Your task to perform on an android device: Search for Mexican restaurants on Maps Image 0: 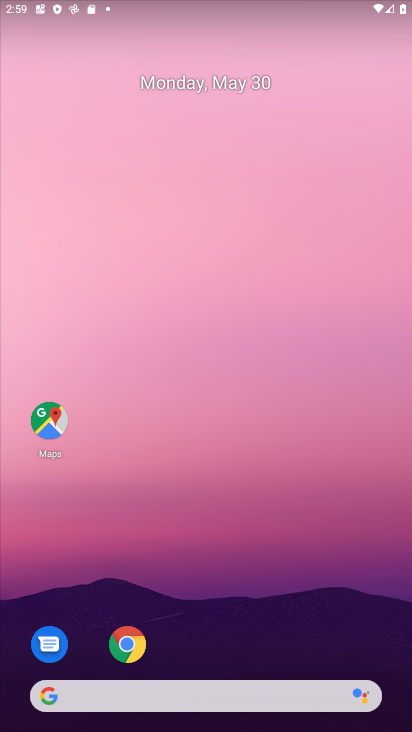
Step 0: click (49, 434)
Your task to perform on an android device: Search for Mexican restaurants on Maps Image 1: 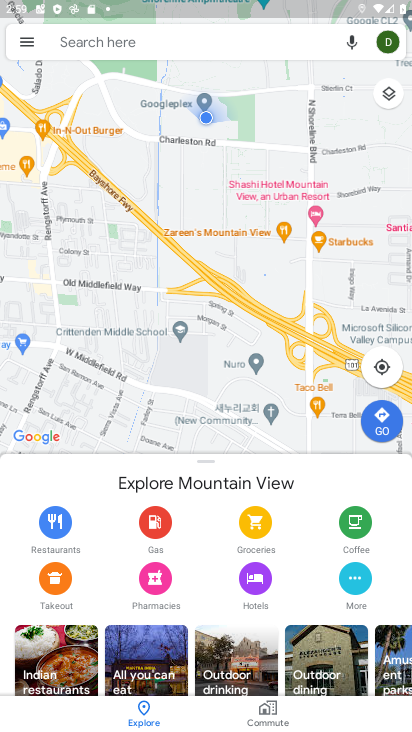
Step 1: click (249, 41)
Your task to perform on an android device: Search for Mexican restaurants on Maps Image 2: 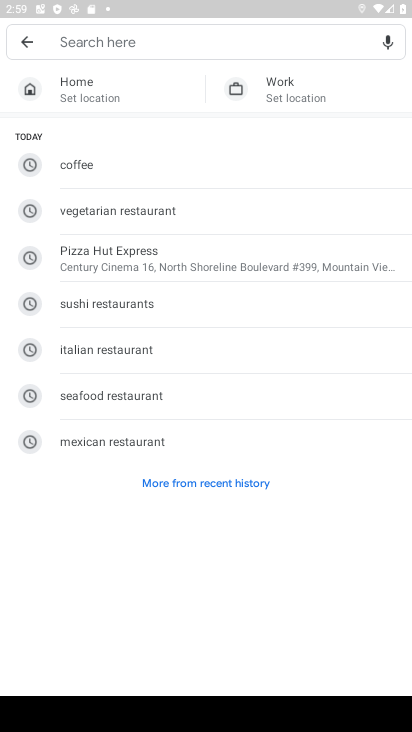
Step 2: click (132, 450)
Your task to perform on an android device: Search for Mexican restaurants on Maps Image 3: 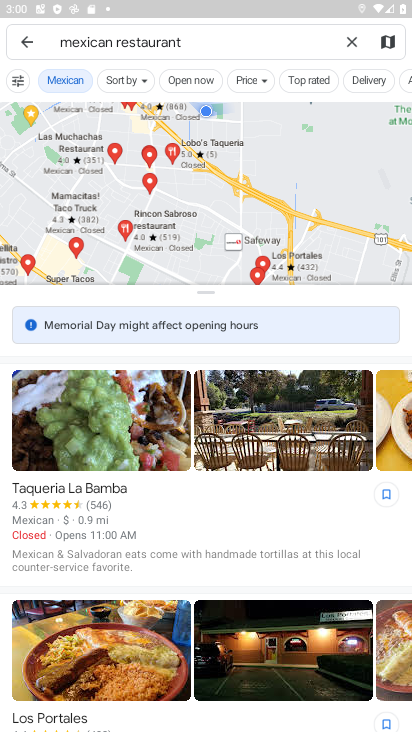
Step 3: task complete